Your task to perform on an android device: Open Google Maps Image 0: 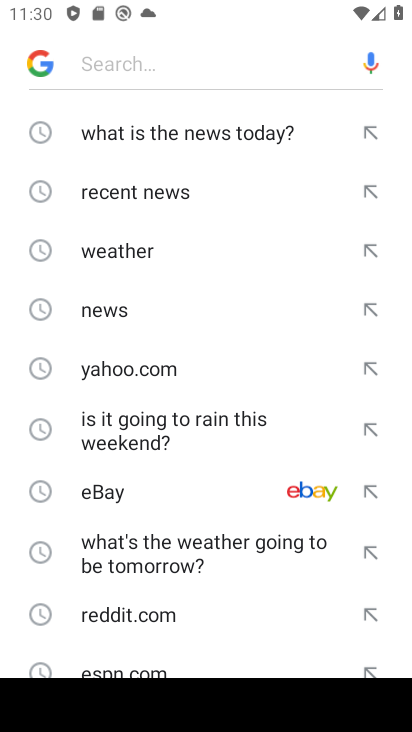
Step 0: press back button
Your task to perform on an android device: Open Google Maps Image 1: 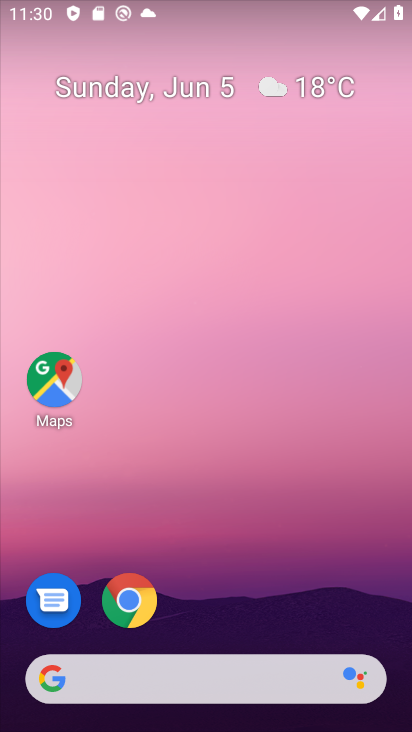
Step 1: click (56, 377)
Your task to perform on an android device: Open Google Maps Image 2: 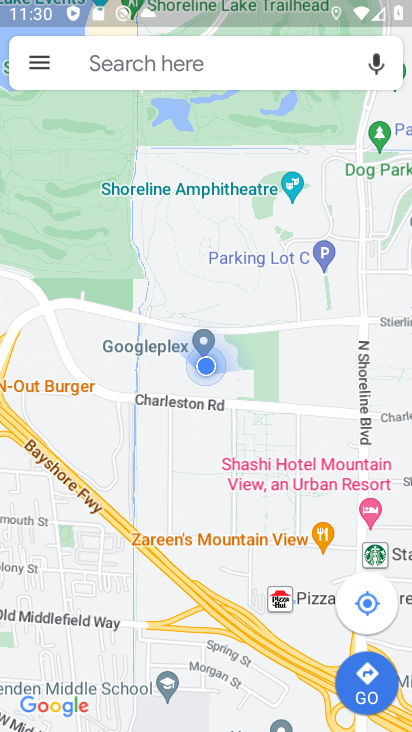
Step 2: task complete